Your task to perform on an android device: open app "TextNow: Call + Text Unlimited" (install if not already installed), go to login, and select forgot password Image 0: 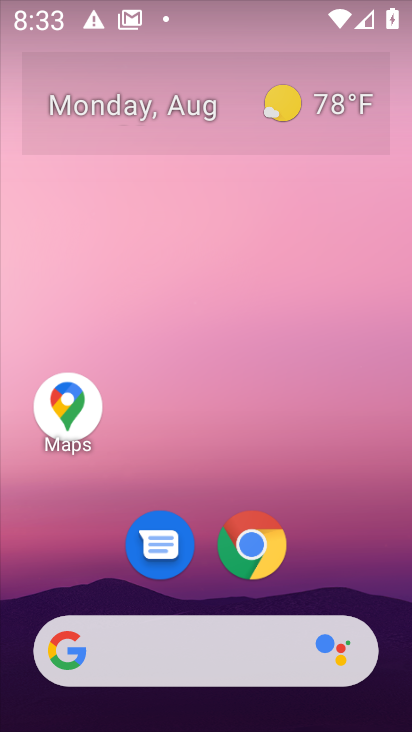
Step 0: press home button
Your task to perform on an android device: open app "TextNow: Call + Text Unlimited" (install if not already installed), go to login, and select forgot password Image 1: 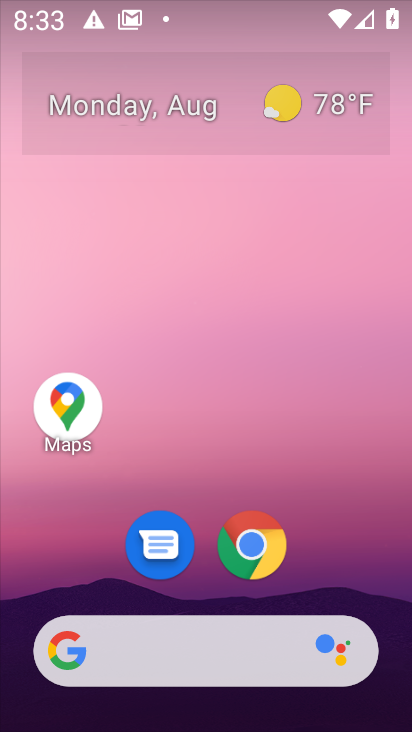
Step 1: drag from (350, 574) to (351, 78)
Your task to perform on an android device: open app "TextNow: Call + Text Unlimited" (install if not already installed), go to login, and select forgot password Image 2: 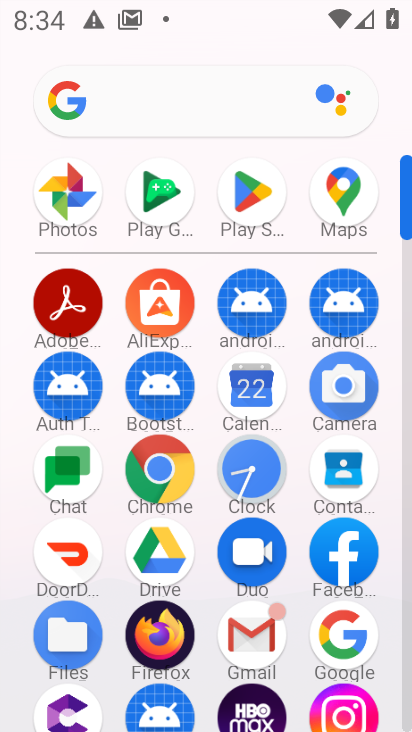
Step 2: click (258, 191)
Your task to perform on an android device: open app "TextNow: Call + Text Unlimited" (install if not already installed), go to login, and select forgot password Image 3: 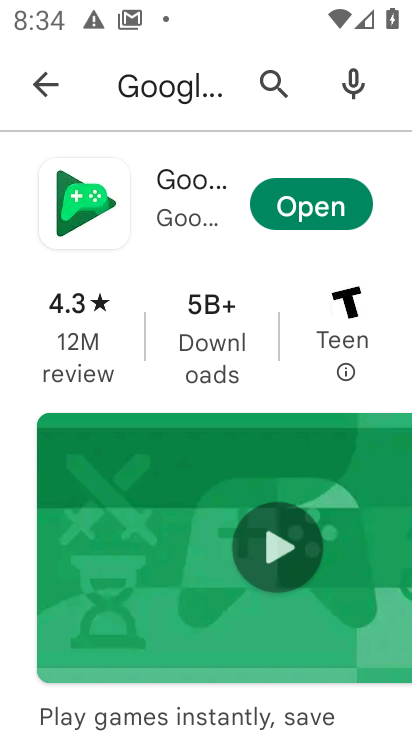
Step 3: press back button
Your task to perform on an android device: open app "TextNow: Call + Text Unlimited" (install if not already installed), go to login, and select forgot password Image 4: 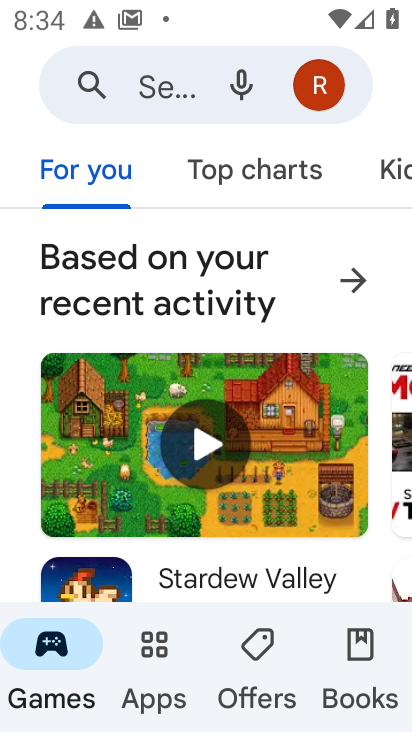
Step 4: click (141, 92)
Your task to perform on an android device: open app "TextNow: Call + Text Unlimited" (install if not already installed), go to login, and select forgot password Image 5: 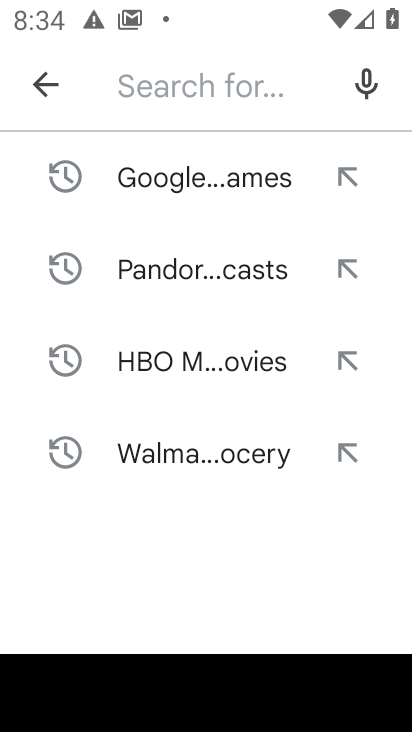
Step 5: press enter
Your task to perform on an android device: open app "TextNow: Call + Text Unlimited" (install if not already installed), go to login, and select forgot password Image 6: 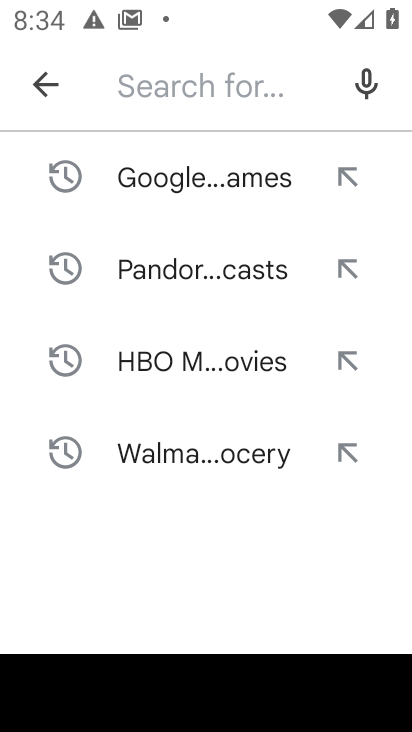
Step 6: type "TextNow: Call + Text Unlimited"
Your task to perform on an android device: open app "TextNow: Call + Text Unlimited" (install if not already installed), go to login, and select forgot password Image 7: 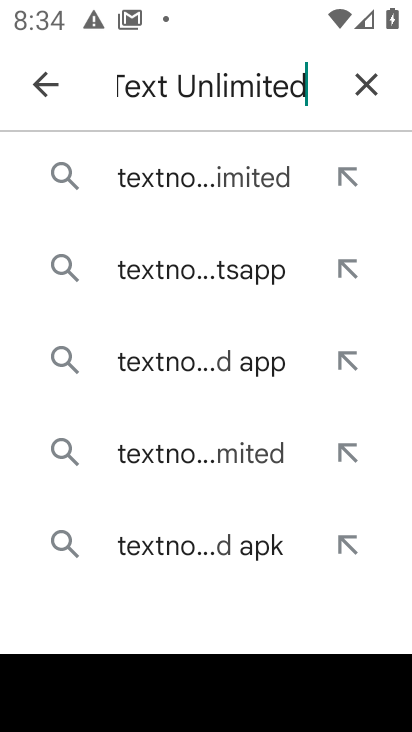
Step 7: click (219, 170)
Your task to perform on an android device: open app "TextNow: Call + Text Unlimited" (install if not already installed), go to login, and select forgot password Image 8: 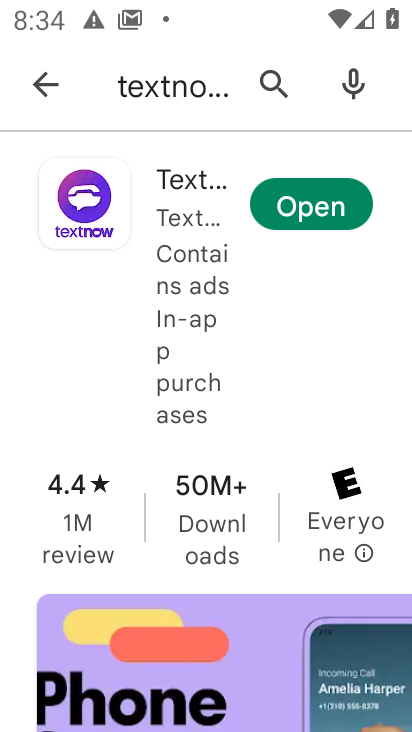
Step 8: click (297, 198)
Your task to perform on an android device: open app "TextNow: Call + Text Unlimited" (install if not already installed), go to login, and select forgot password Image 9: 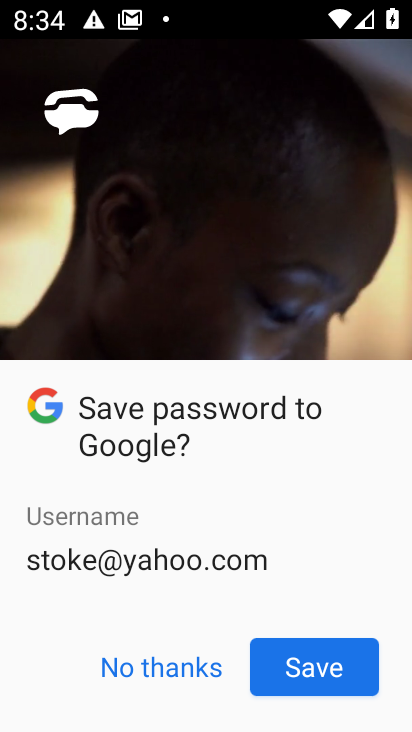
Step 9: click (139, 673)
Your task to perform on an android device: open app "TextNow: Call + Text Unlimited" (install if not already installed), go to login, and select forgot password Image 10: 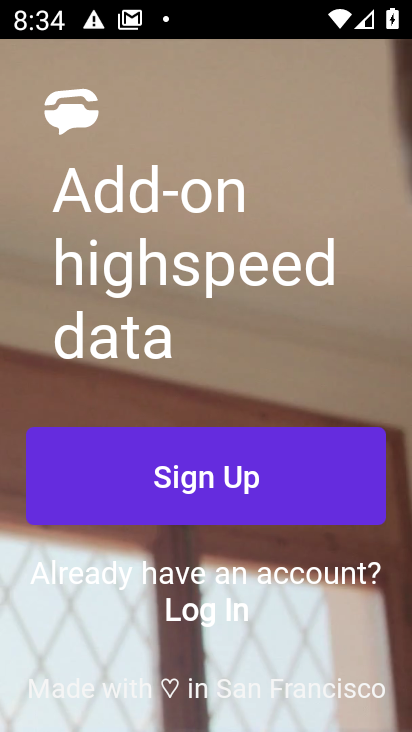
Step 10: click (210, 615)
Your task to perform on an android device: open app "TextNow: Call + Text Unlimited" (install if not already installed), go to login, and select forgot password Image 11: 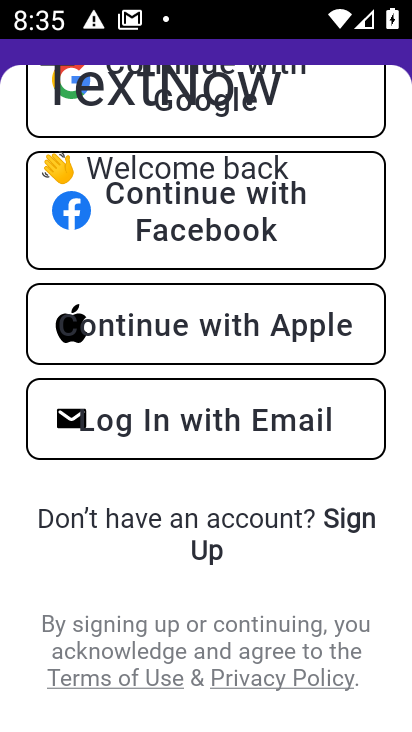
Step 11: task complete